Your task to perform on an android device: empty trash in the gmail app Image 0: 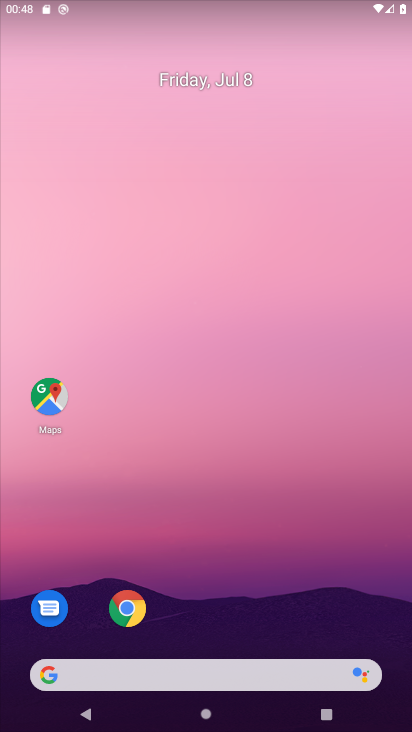
Step 0: drag from (226, 620) to (230, 375)
Your task to perform on an android device: empty trash in the gmail app Image 1: 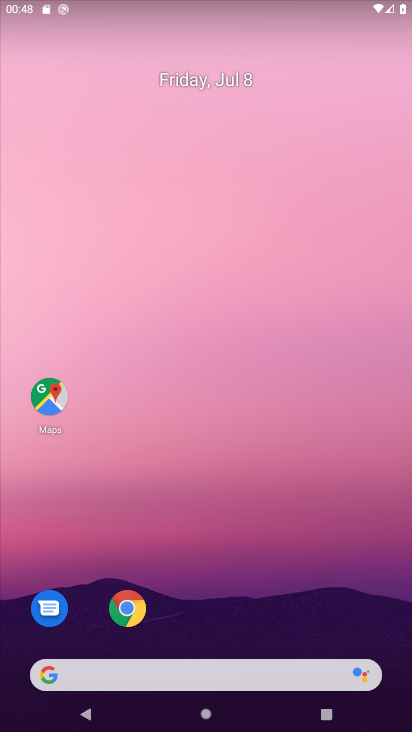
Step 1: drag from (240, 582) to (234, 134)
Your task to perform on an android device: empty trash in the gmail app Image 2: 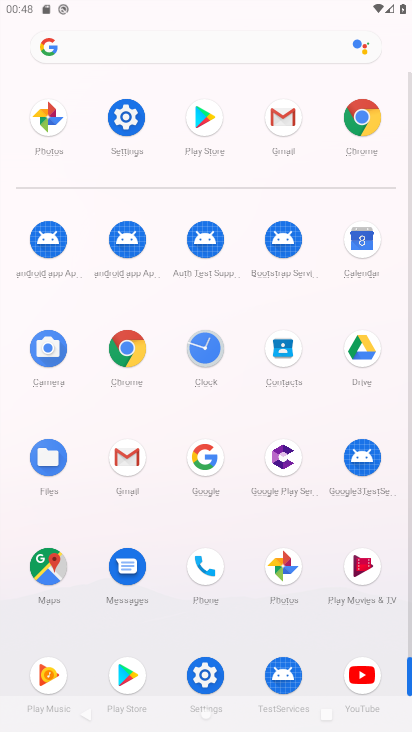
Step 2: click (293, 114)
Your task to perform on an android device: empty trash in the gmail app Image 3: 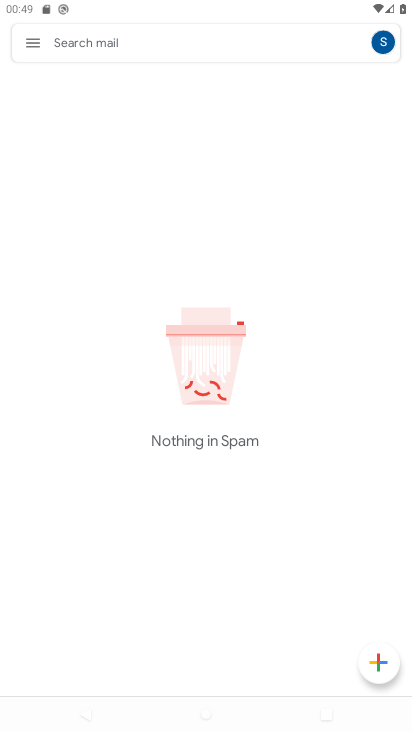
Step 3: click (28, 43)
Your task to perform on an android device: empty trash in the gmail app Image 4: 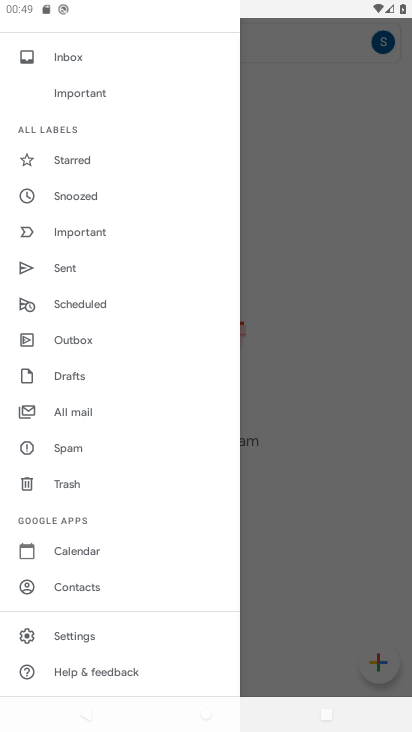
Step 4: click (78, 476)
Your task to perform on an android device: empty trash in the gmail app Image 5: 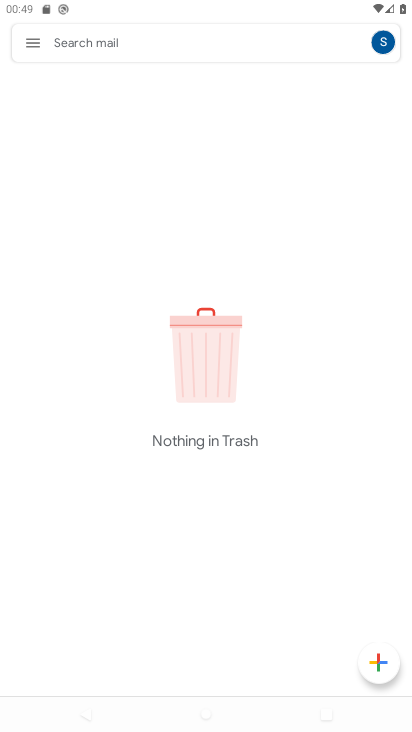
Step 5: task complete